Your task to perform on an android device: turn off improve location accuracy Image 0: 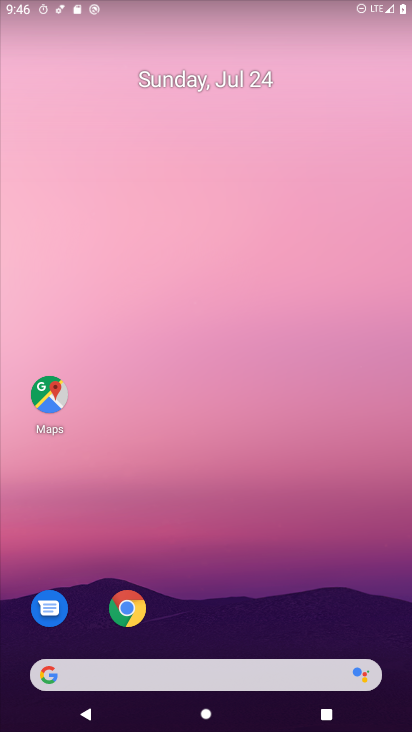
Step 0: drag from (186, 630) to (197, 210)
Your task to perform on an android device: turn off improve location accuracy Image 1: 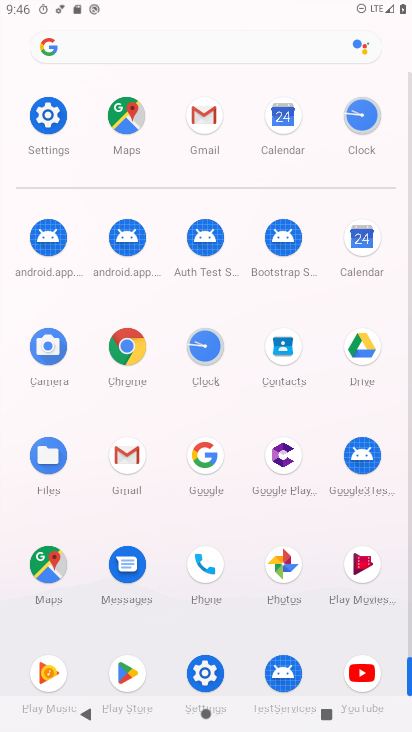
Step 1: click (190, 664)
Your task to perform on an android device: turn off improve location accuracy Image 2: 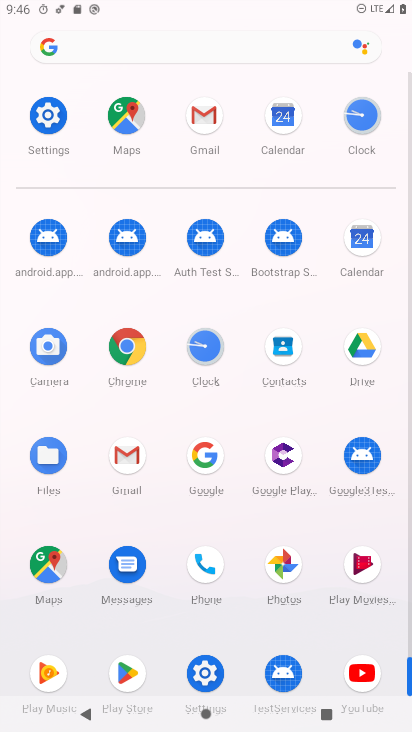
Step 2: click (190, 664)
Your task to perform on an android device: turn off improve location accuracy Image 3: 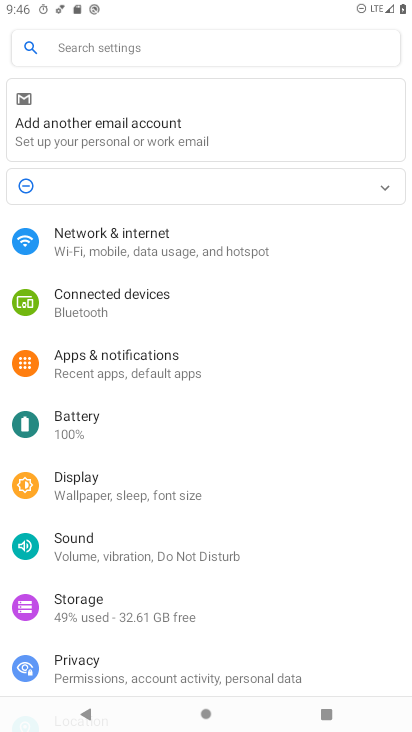
Step 3: drag from (136, 552) to (171, 226)
Your task to perform on an android device: turn off improve location accuracy Image 4: 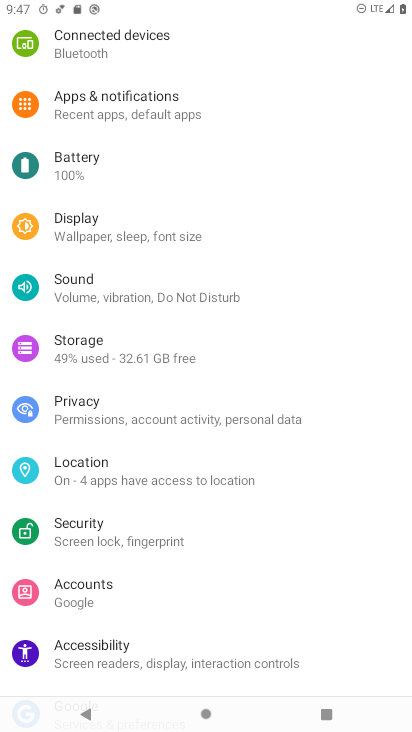
Step 4: click (72, 470)
Your task to perform on an android device: turn off improve location accuracy Image 5: 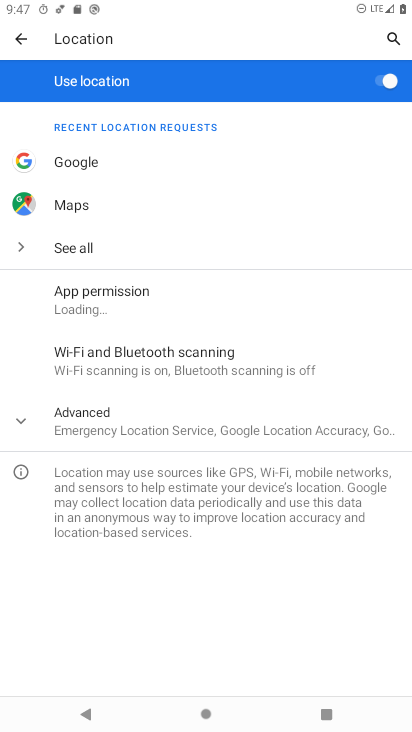
Step 5: click (124, 415)
Your task to perform on an android device: turn off improve location accuracy Image 6: 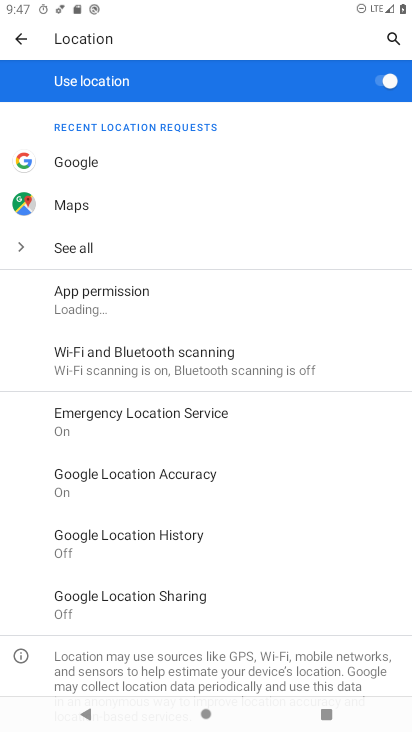
Step 6: click (159, 478)
Your task to perform on an android device: turn off improve location accuracy Image 7: 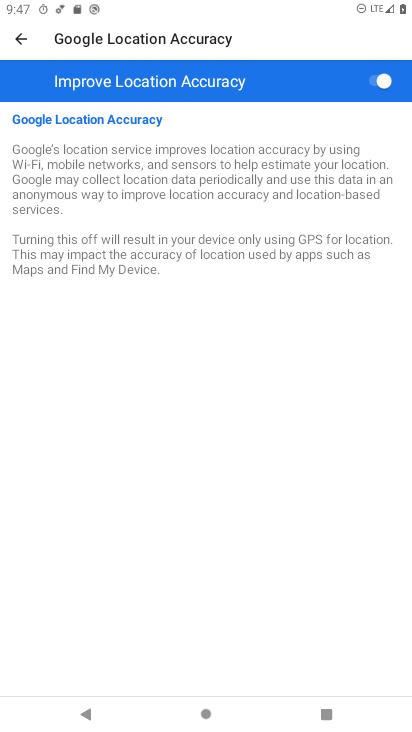
Step 7: click (366, 86)
Your task to perform on an android device: turn off improve location accuracy Image 8: 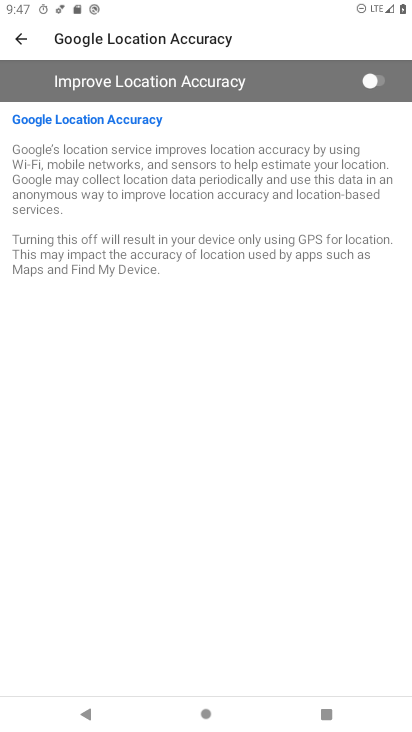
Step 8: task complete